Your task to perform on an android device: change your default location settings in chrome Image 0: 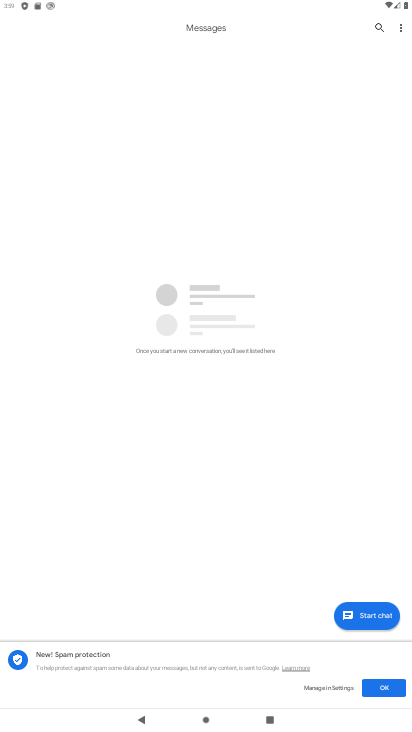
Step 0: press home button
Your task to perform on an android device: change your default location settings in chrome Image 1: 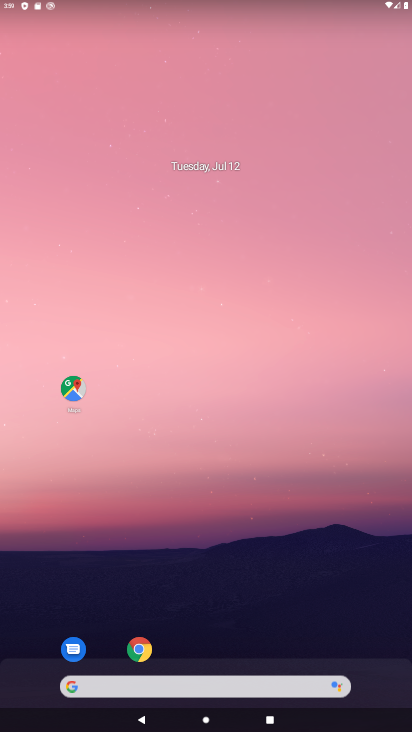
Step 1: click (143, 664)
Your task to perform on an android device: change your default location settings in chrome Image 2: 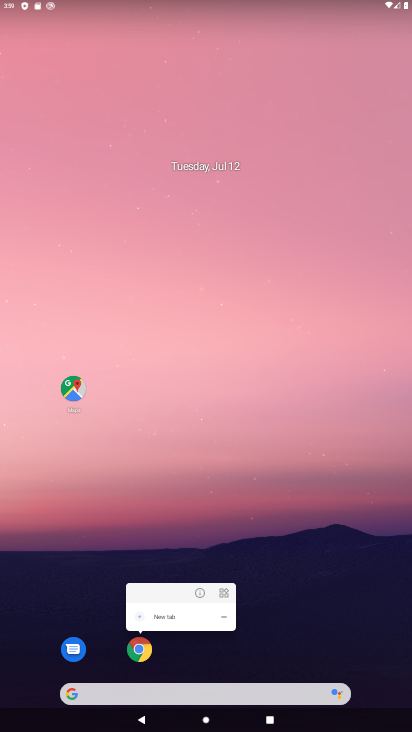
Step 2: click (141, 650)
Your task to perform on an android device: change your default location settings in chrome Image 3: 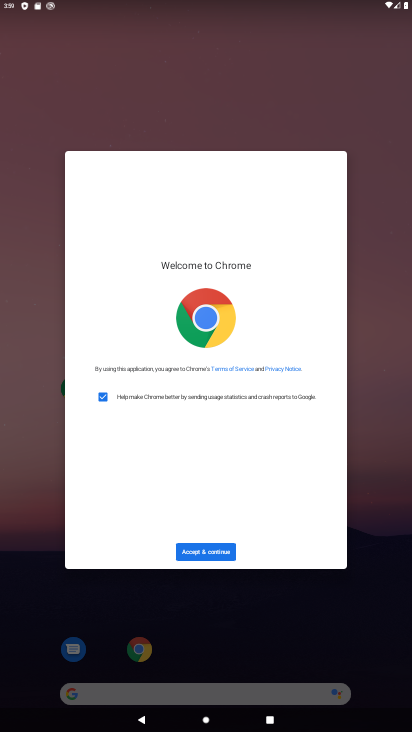
Step 3: click (178, 549)
Your task to perform on an android device: change your default location settings in chrome Image 4: 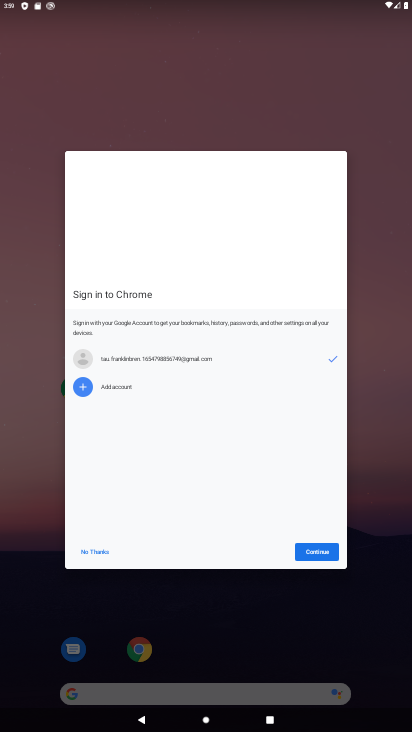
Step 4: click (315, 561)
Your task to perform on an android device: change your default location settings in chrome Image 5: 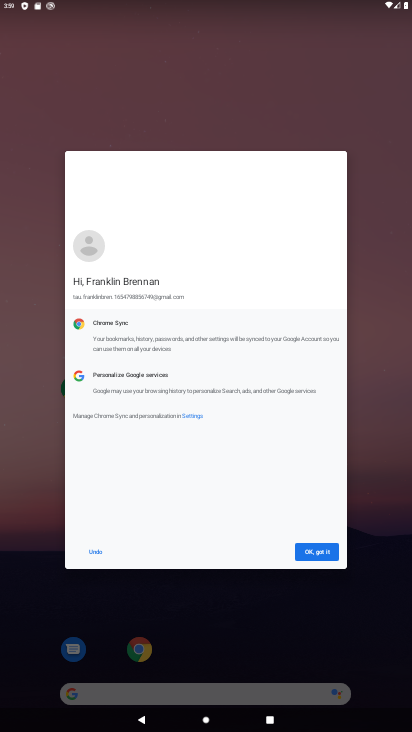
Step 5: click (316, 559)
Your task to perform on an android device: change your default location settings in chrome Image 6: 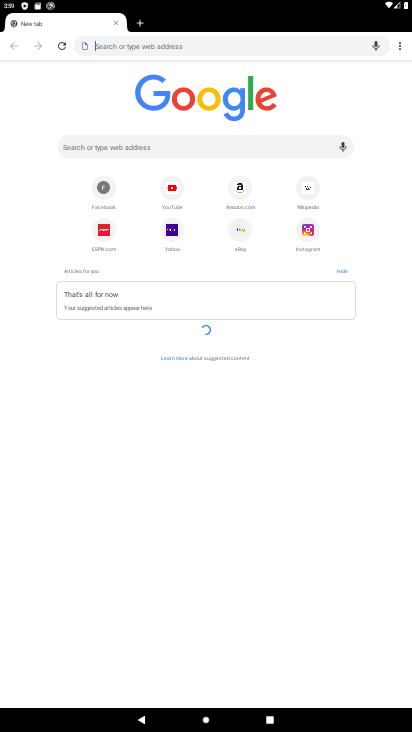
Step 6: drag from (408, 40) to (341, 210)
Your task to perform on an android device: change your default location settings in chrome Image 7: 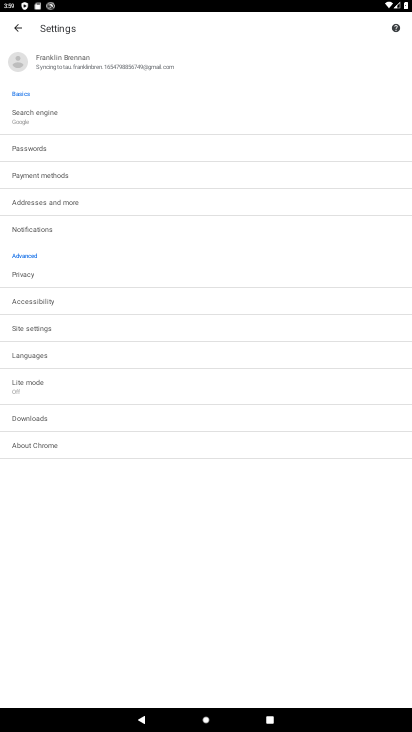
Step 7: click (63, 331)
Your task to perform on an android device: change your default location settings in chrome Image 8: 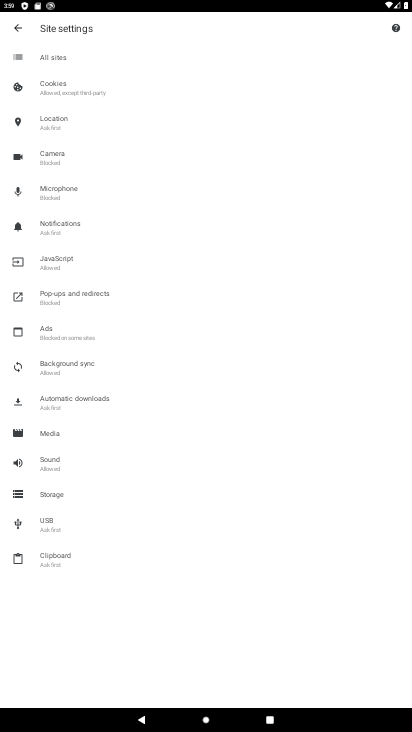
Step 8: click (96, 121)
Your task to perform on an android device: change your default location settings in chrome Image 9: 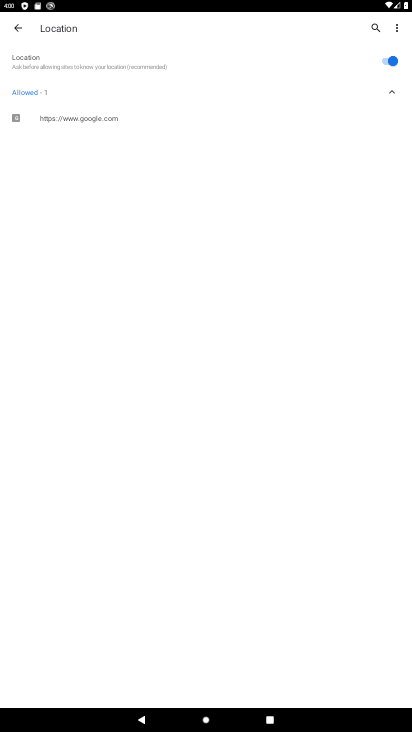
Step 9: click (112, 129)
Your task to perform on an android device: change your default location settings in chrome Image 10: 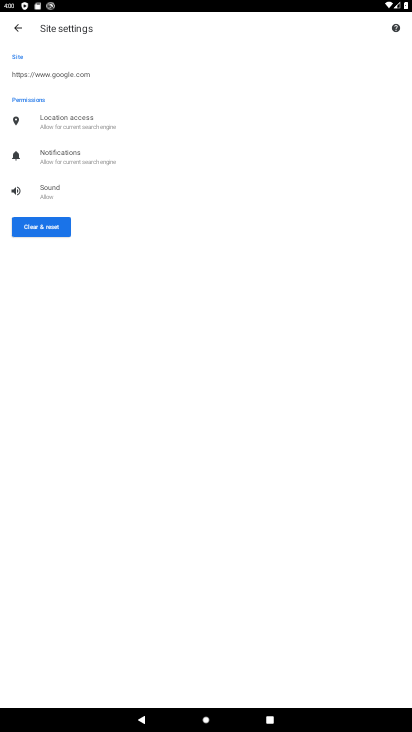
Step 10: task complete